Your task to perform on an android device: toggle improve location accuracy Image 0: 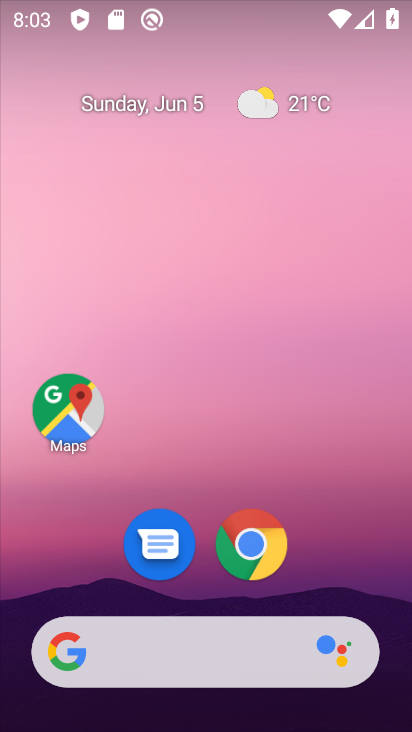
Step 0: drag from (389, 622) to (387, 131)
Your task to perform on an android device: toggle improve location accuracy Image 1: 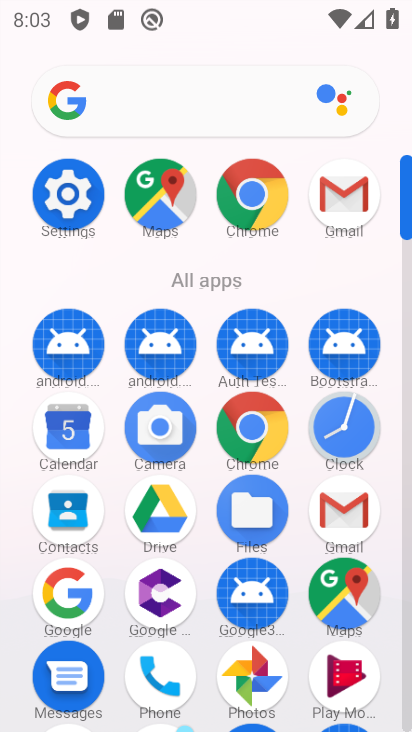
Step 1: click (75, 167)
Your task to perform on an android device: toggle improve location accuracy Image 2: 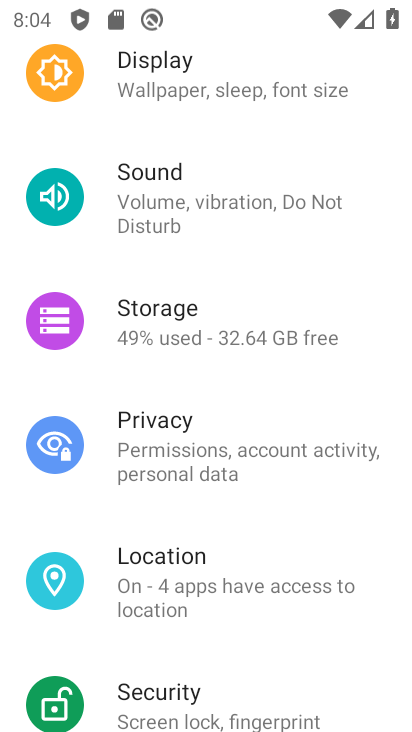
Step 2: drag from (267, 92) to (248, 571)
Your task to perform on an android device: toggle improve location accuracy Image 3: 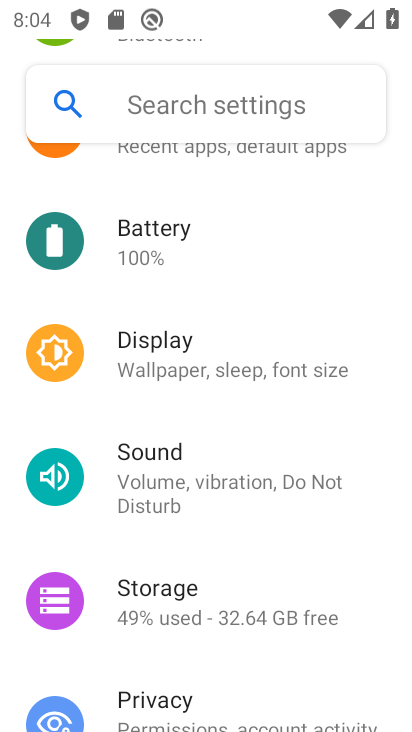
Step 3: drag from (250, 621) to (264, 241)
Your task to perform on an android device: toggle improve location accuracy Image 4: 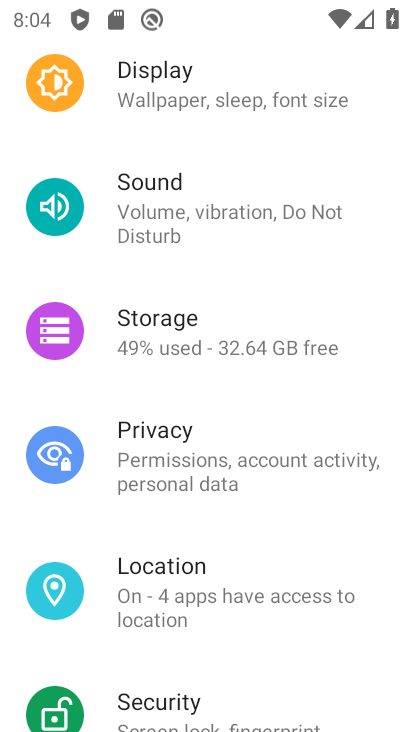
Step 4: click (161, 591)
Your task to perform on an android device: toggle improve location accuracy Image 5: 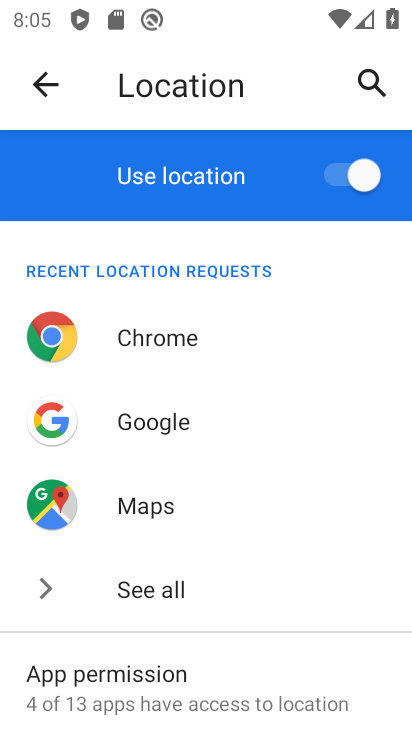
Step 5: drag from (246, 609) to (266, 223)
Your task to perform on an android device: toggle improve location accuracy Image 6: 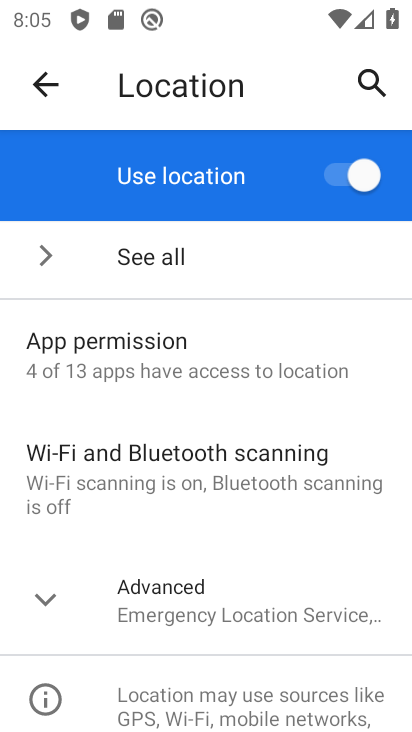
Step 6: drag from (227, 572) to (229, 296)
Your task to perform on an android device: toggle improve location accuracy Image 7: 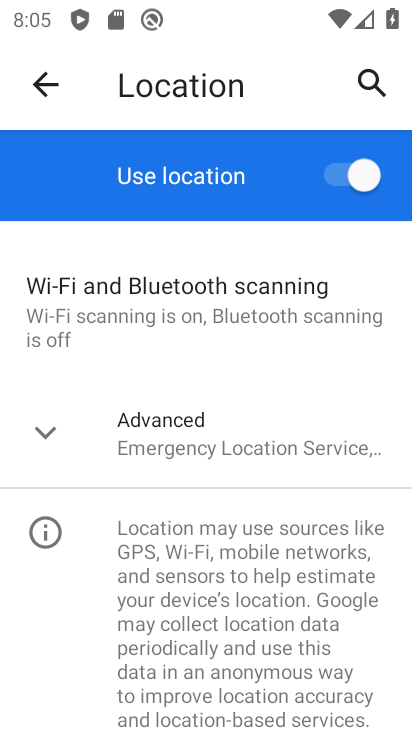
Step 7: click (48, 437)
Your task to perform on an android device: toggle improve location accuracy Image 8: 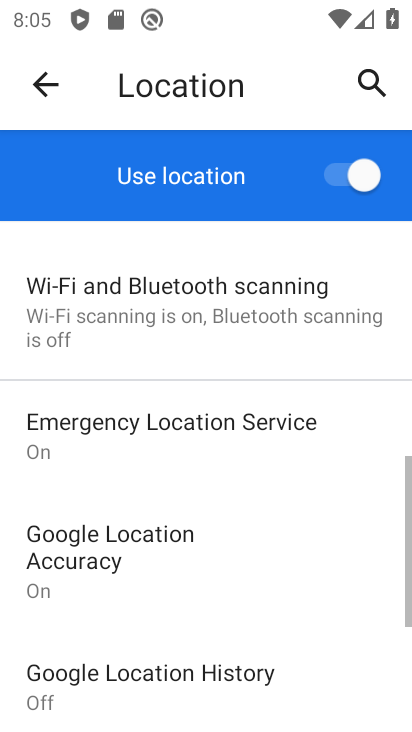
Step 8: drag from (324, 667) to (320, 286)
Your task to perform on an android device: toggle improve location accuracy Image 9: 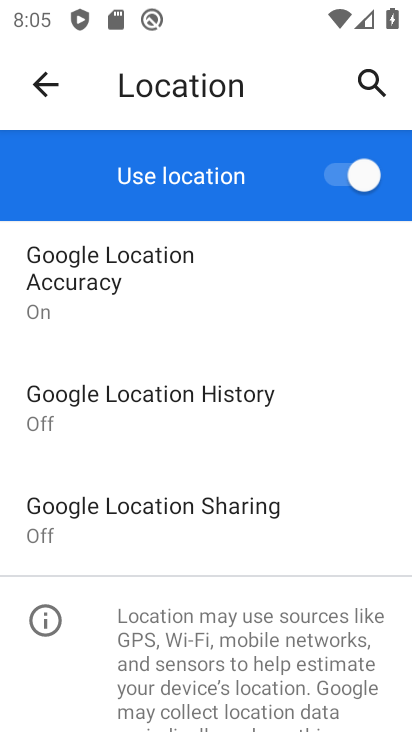
Step 9: click (81, 277)
Your task to perform on an android device: toggle improve location accuracy Image 10: 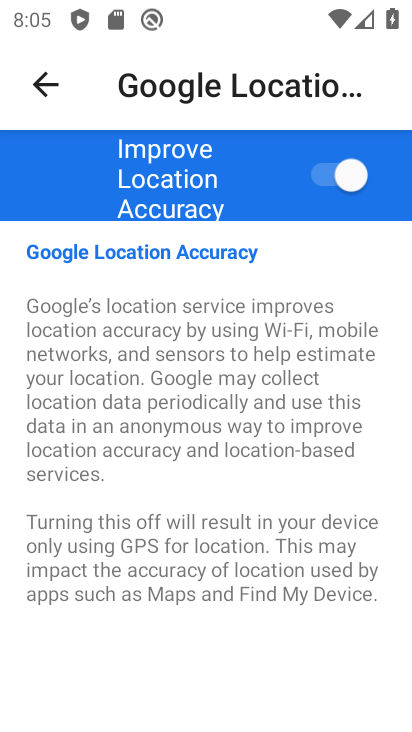
Step 10: click (339, 161)
Your task to perform on an android device: toggle improve location accuracy Image 11: 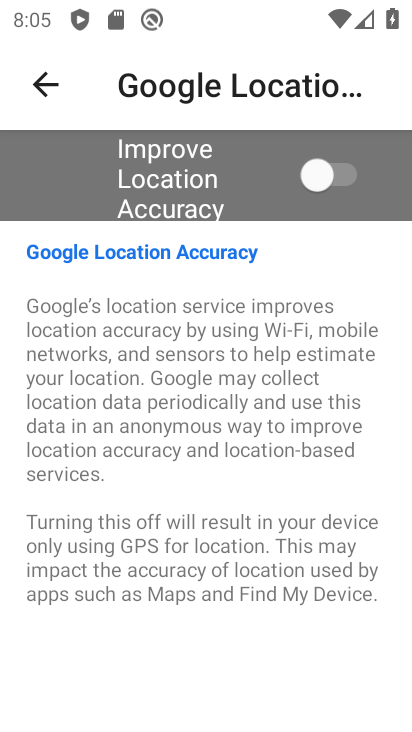
Step 11: task complete